Your task to perform on an android device: Show the shopping cart on target. Add "dell alienware" to the cart on target Image 0: 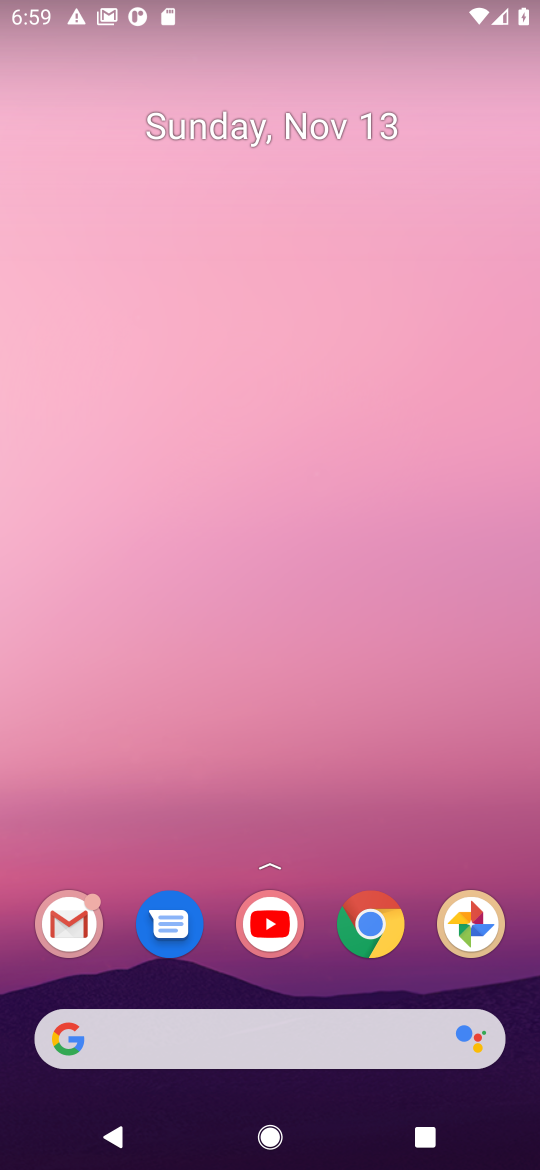
Step 0: click (375, 935)
Your task to perform on an android device: Show the shopping cart on target. Add "dell alienware" to the cart on target Image 1: 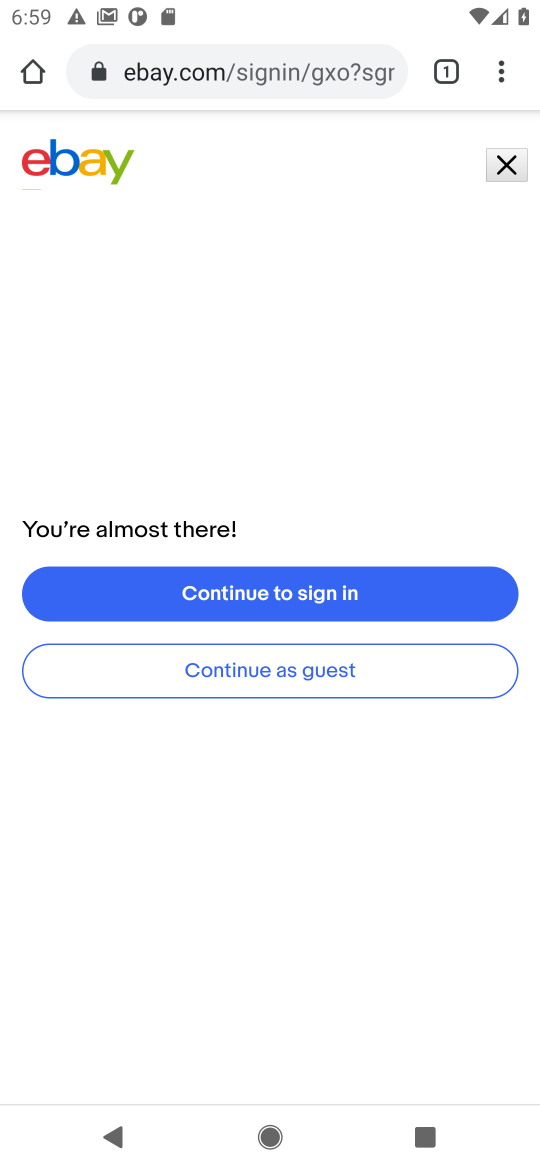
Step 1: click (214, 74)
Your task to perform on an android device: Show the shopping cart on target. Add "dell alienware" to the cart on target Image 2: 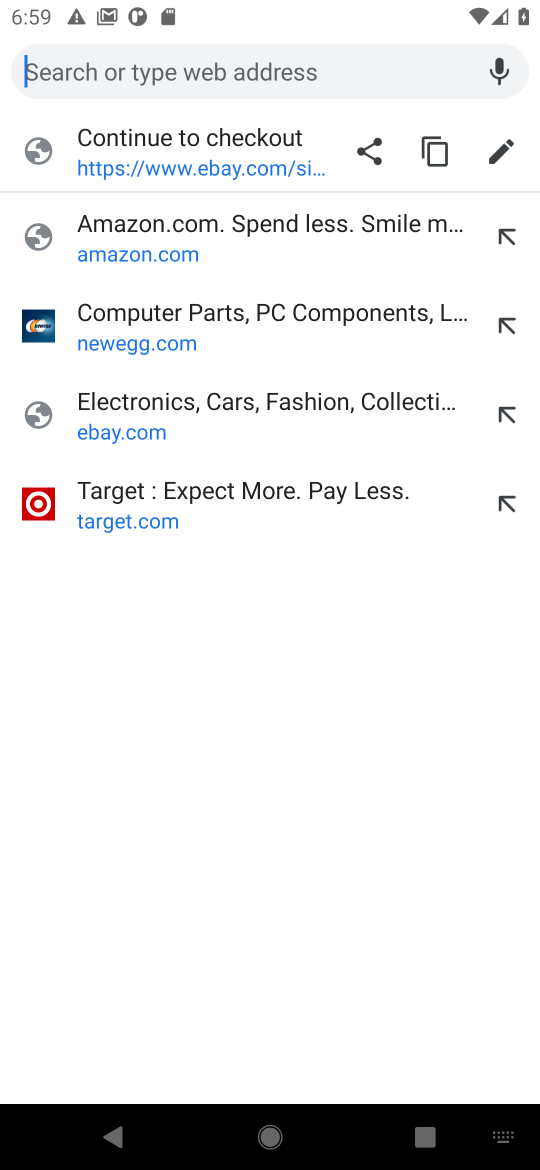
Step 2: click (96, 510)
Your task to perform on an android device: Show the shopping cart on target. Add "dell alienware" to the cart on target Image 3: 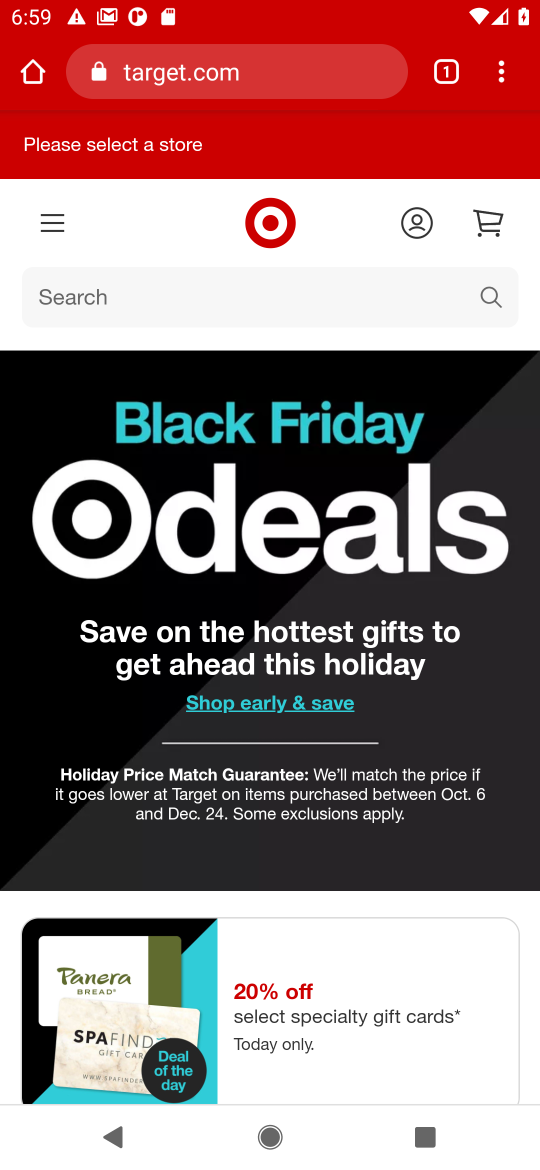
Step 3: click (489, 225)
Your task to perform on an android device: Show the shopping cart on target. Add "dell alienware" to the cart on target Image 4: 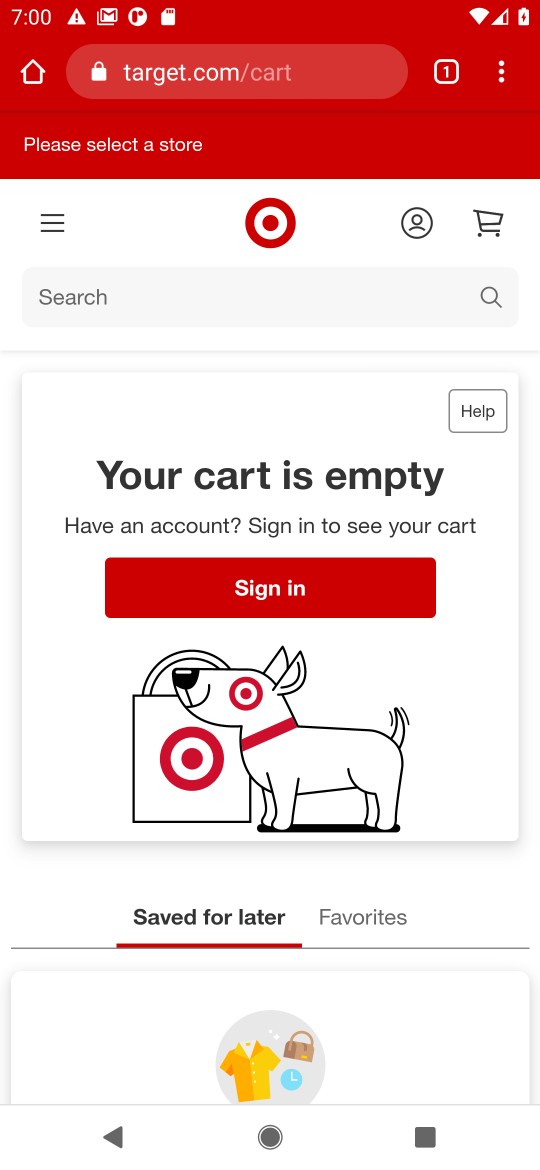
Step 4: click (486, 299)
Your task to perform on an android device: Show the shopping cart on target. Add "dell alienware" to the cart on target Image 5: 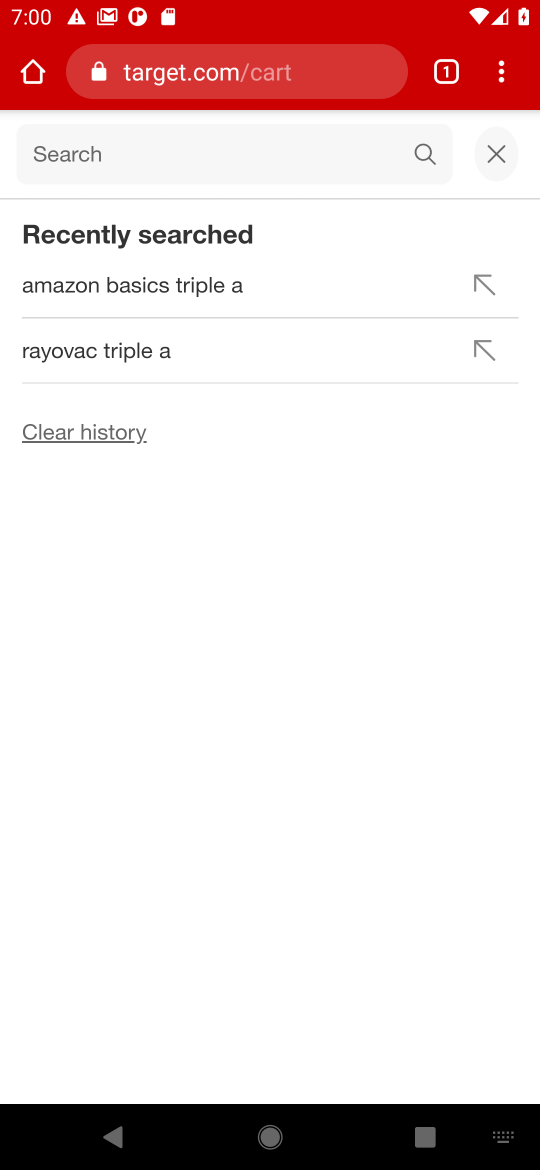
Step 5: type "dell alienware"
Your task to perform on an android device: Show the shopping cart on target. Add "dell alienware" to the cart on target Image 6: 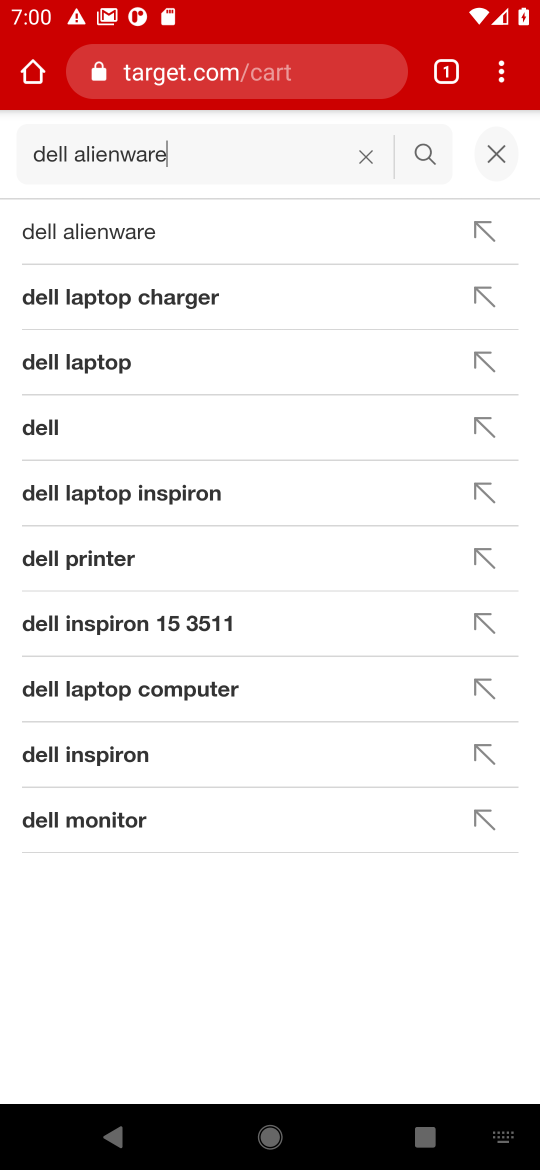
Step 6: click (74, 236)
Your task to perform on an android device: Show the shopping cart on target. Add "dell alienware" to the cart on target Image 7: 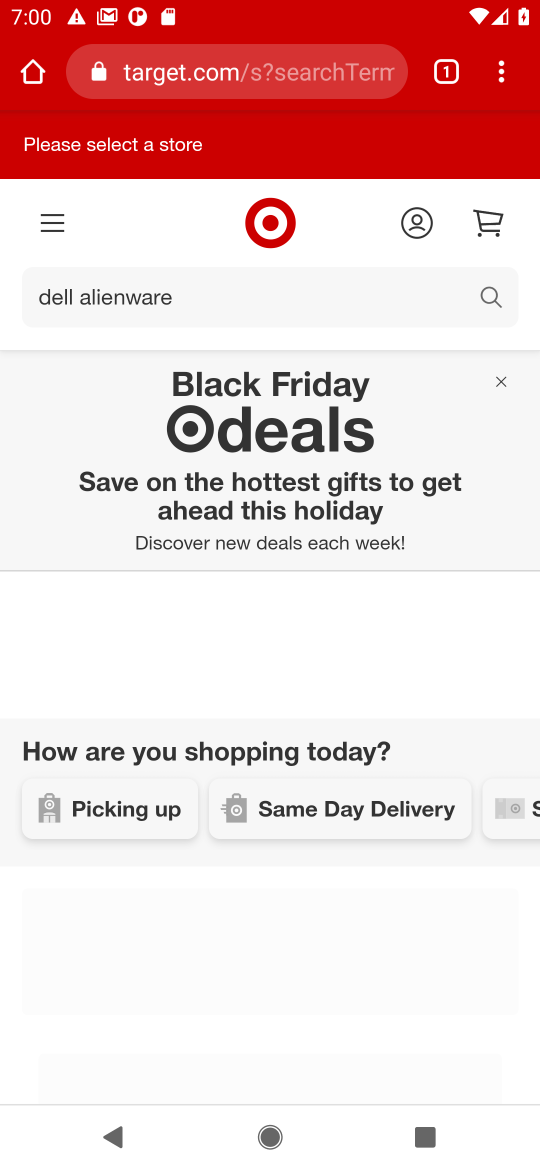
Step 7: task complete